Your task to perform on an android device: install app "Adobe Acrobat Reader: Edit PDF" Image 0: 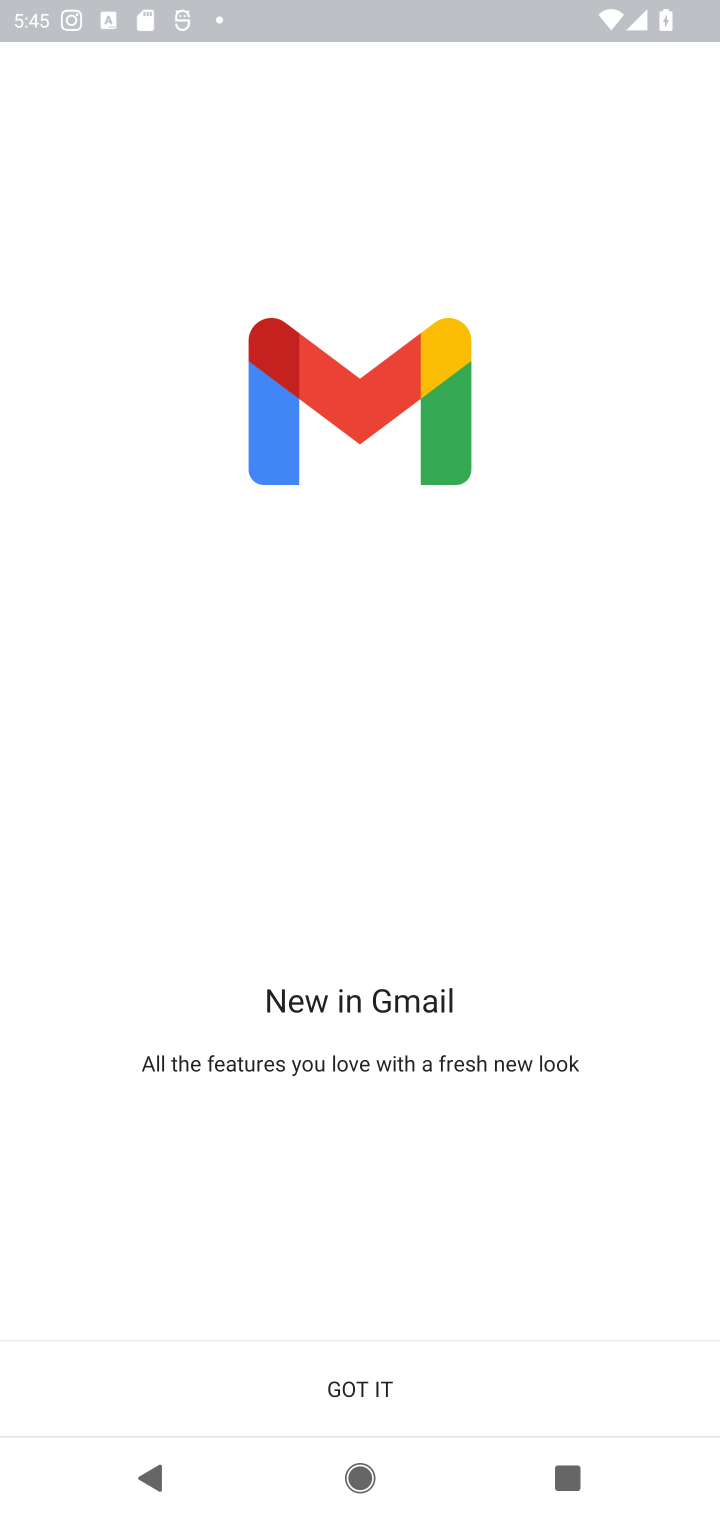
Step 0: press home button
Your task to perform on an android device: install app "Adobe Acrobat Reader: Edit PDF" Image 1: 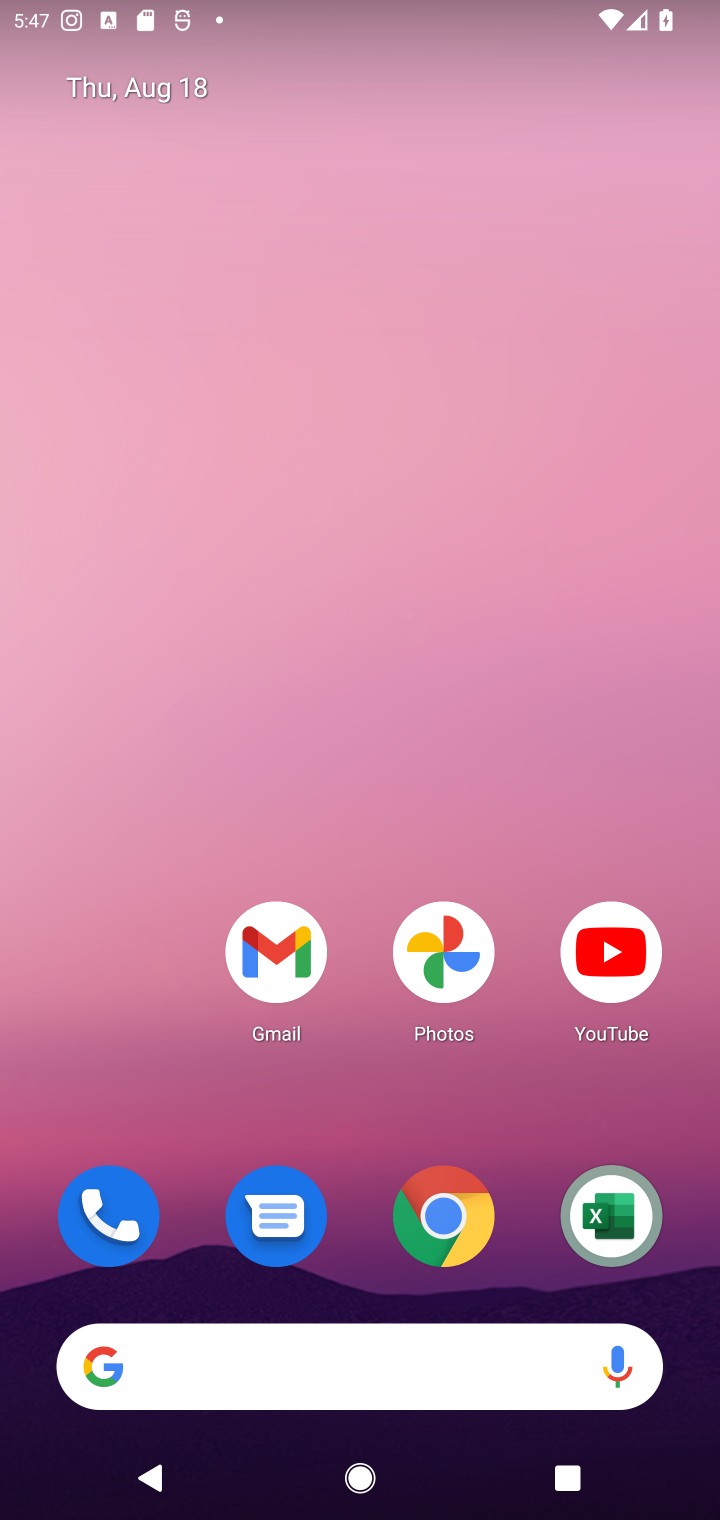
Step 1: drag from (366, 1078) to (432, 374)
Your task to perform on an android device: install app "Adobe Acrobat Reader: Edit PDF" Image 2: 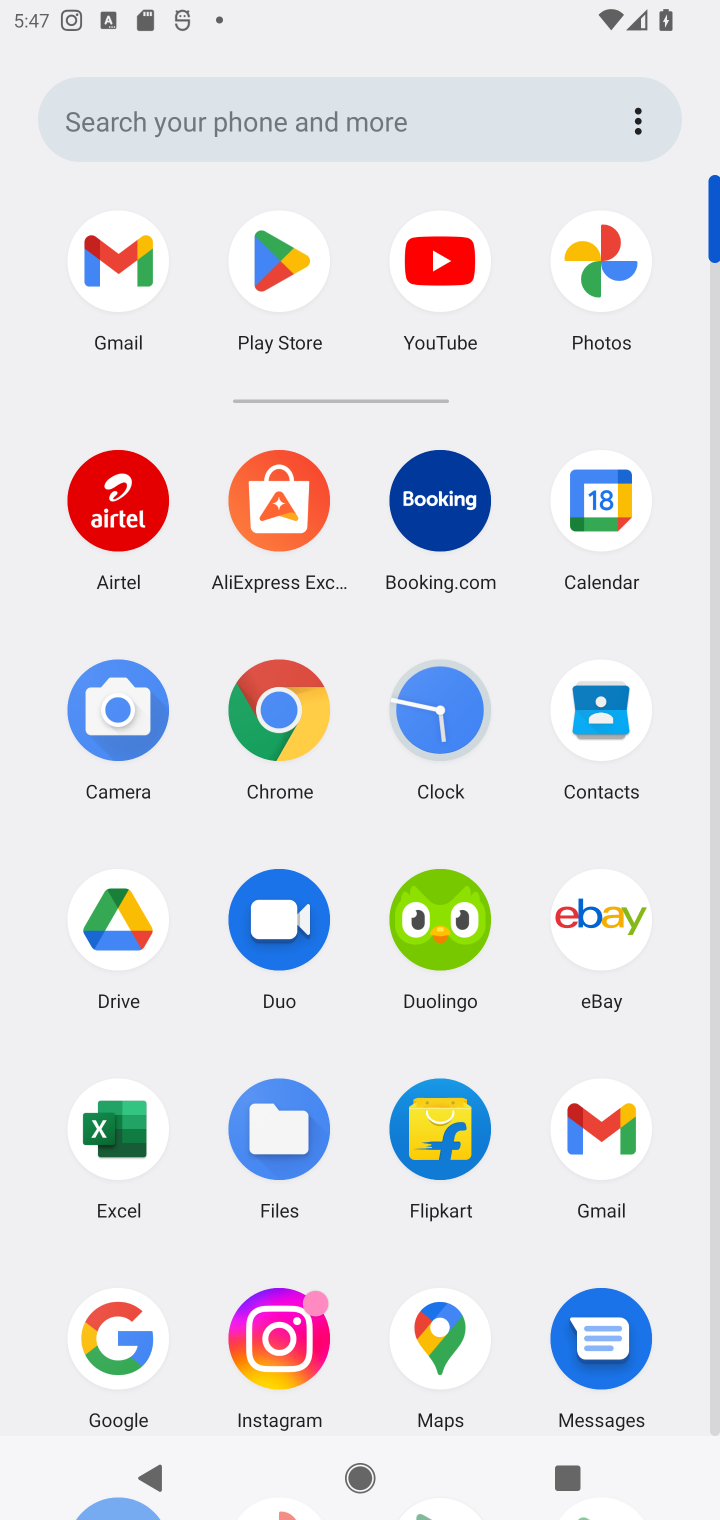
Step 2: click (300, 254)
Your task to perform on an android device: install app "Adobe Acrobat Reader: Edit PDF" Image 3: 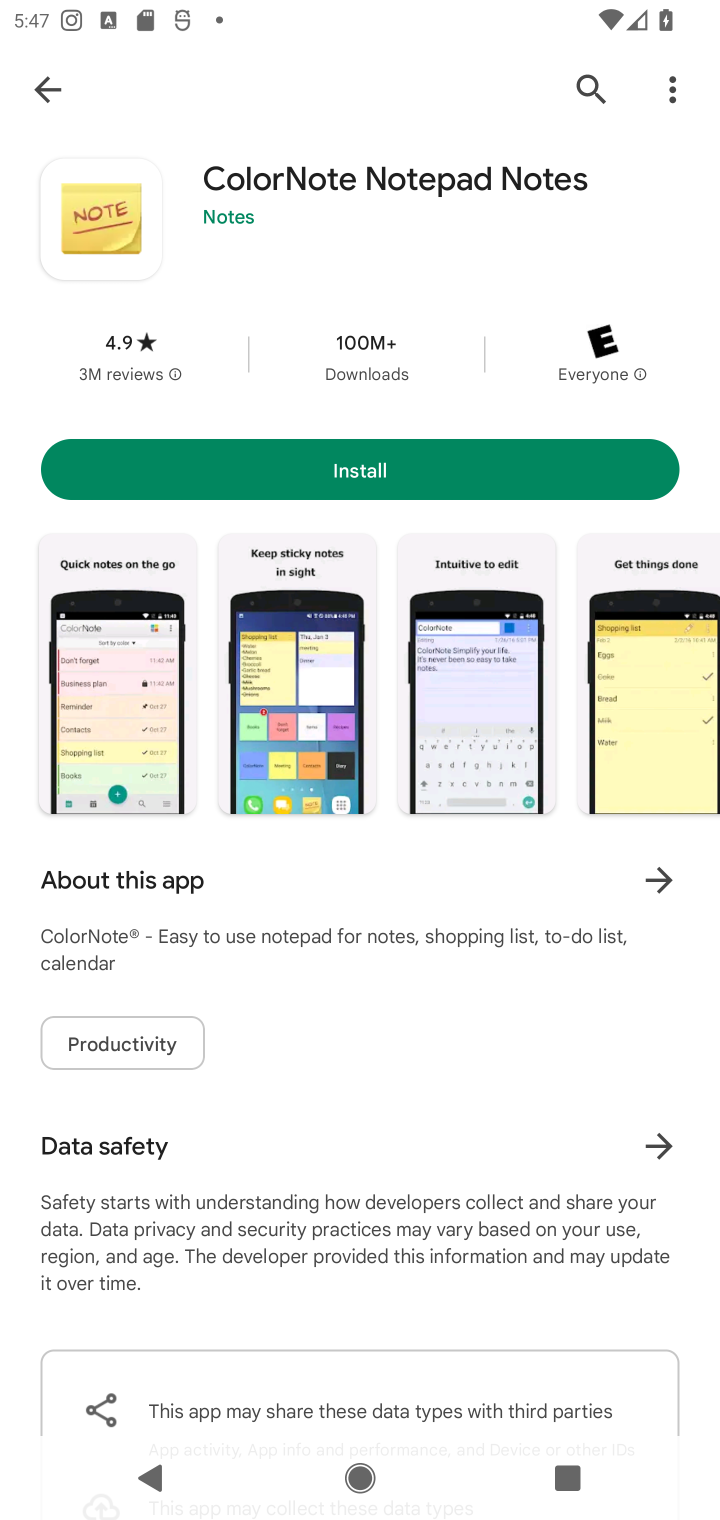
Step 3: click (576, 89)
Your task to perform on an android device: install app "Adobe Acrobat Reader: Edit PDF" Image 4: 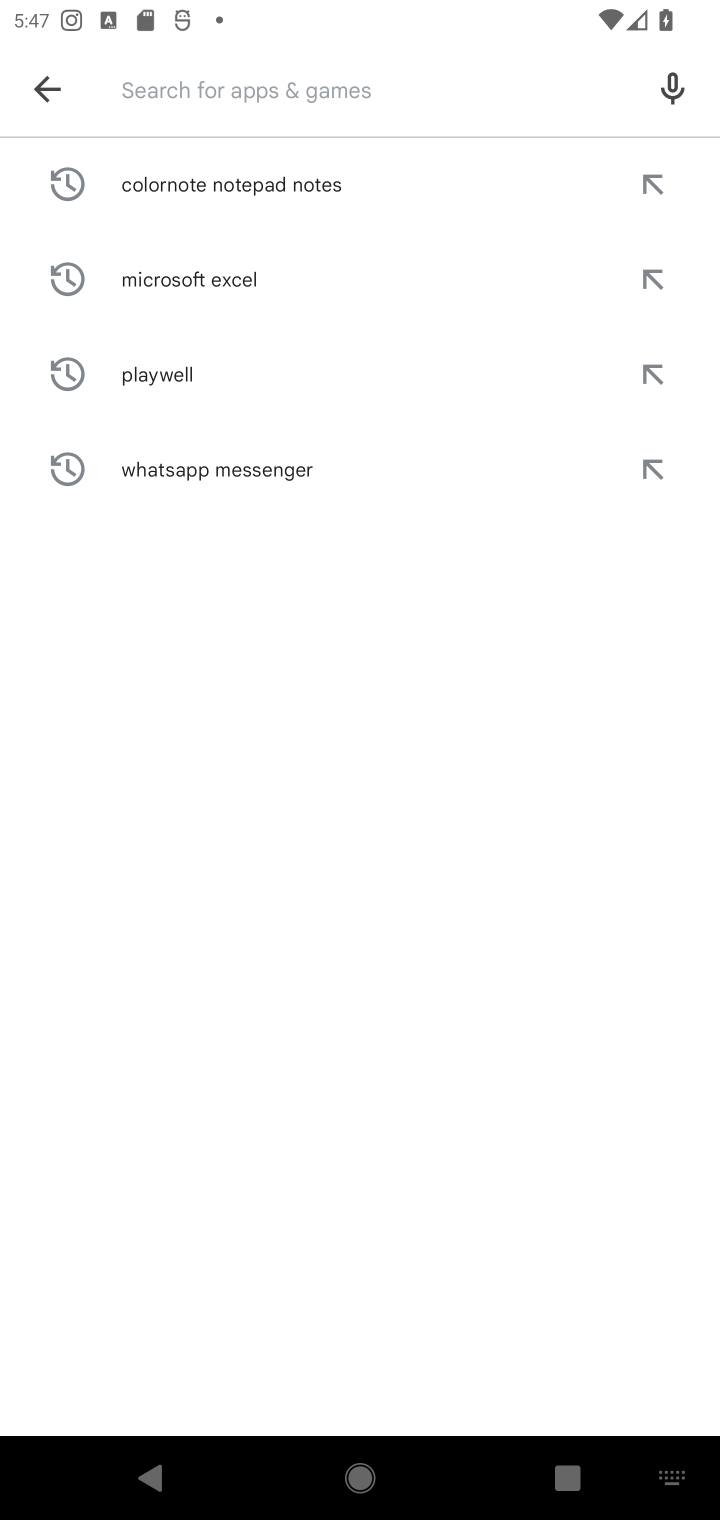
Step 4: type "Adobe Acrobat Reader: Edit PDF"
Your task to perform on an android device: install app "Adobe Acrobat Reader: Edit PDF" Image 5: 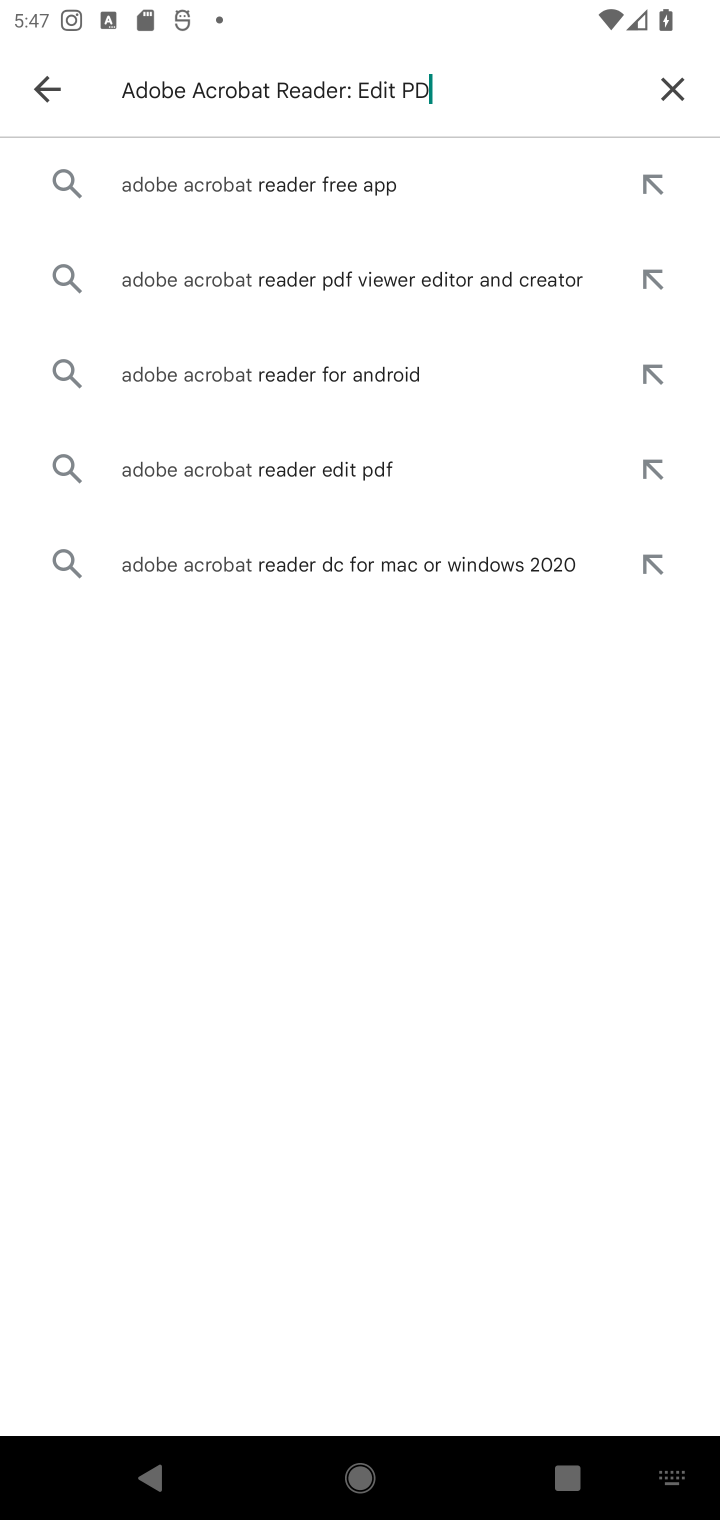
Step 5: type ""
Your task to perform on an android device: install app "Adobe Acrobat Reader: Edit PDF" Image 6: 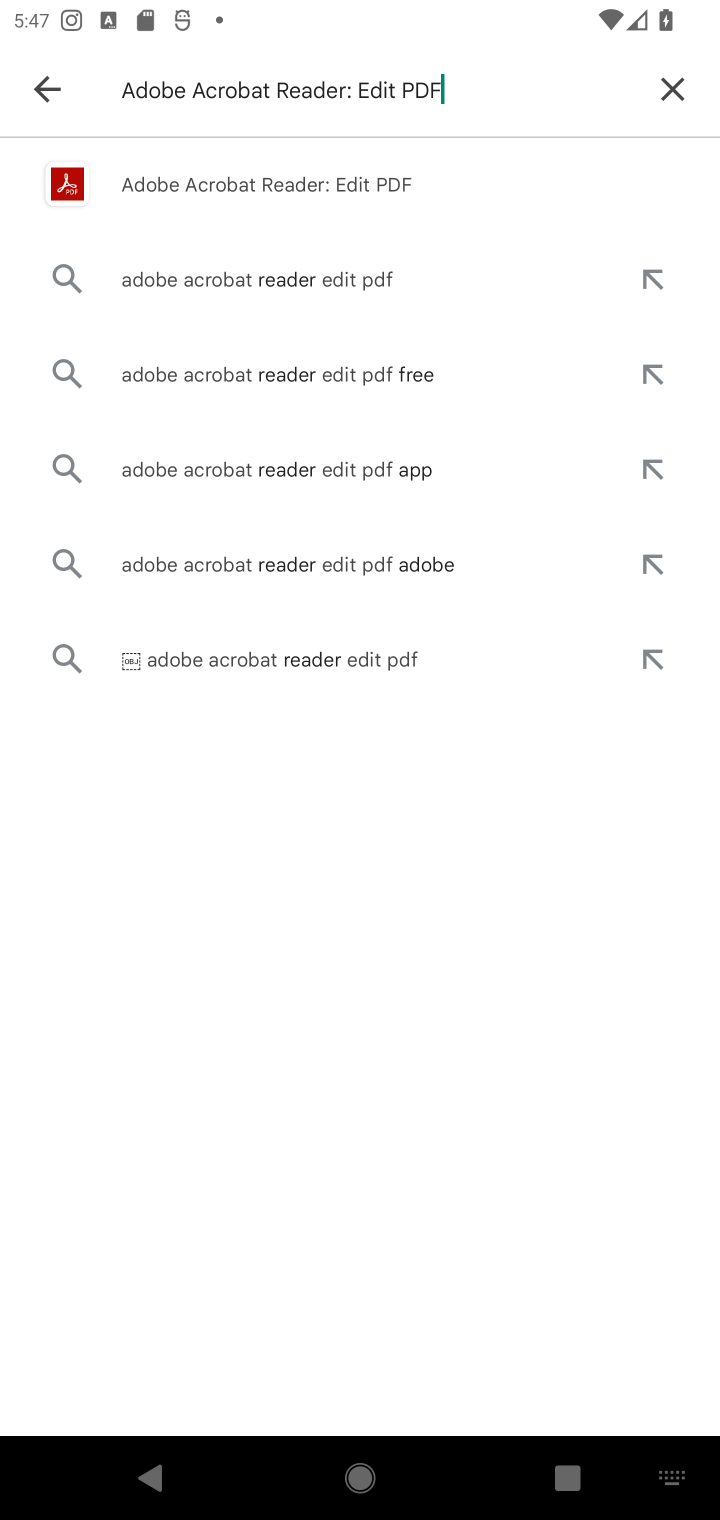
Step 6: click (228, 187)
Your task to perform on an android device: install app "Adobe Acrobat Reader: Edit PDF" Image 7: 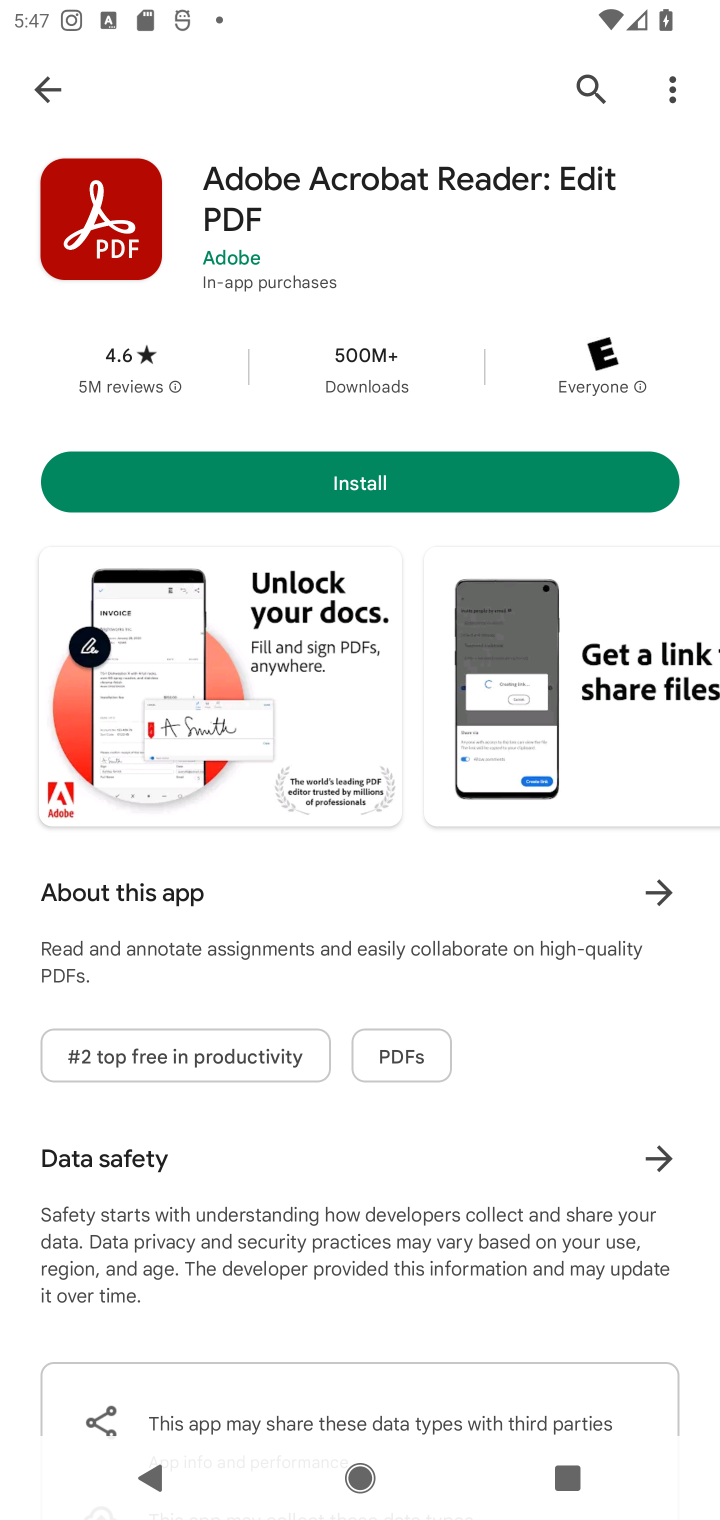
Step 7: click (322, 468)
Your task to perform on an android device: install app "Adobe Acrobat Reader: Edit PDF" Image 8: 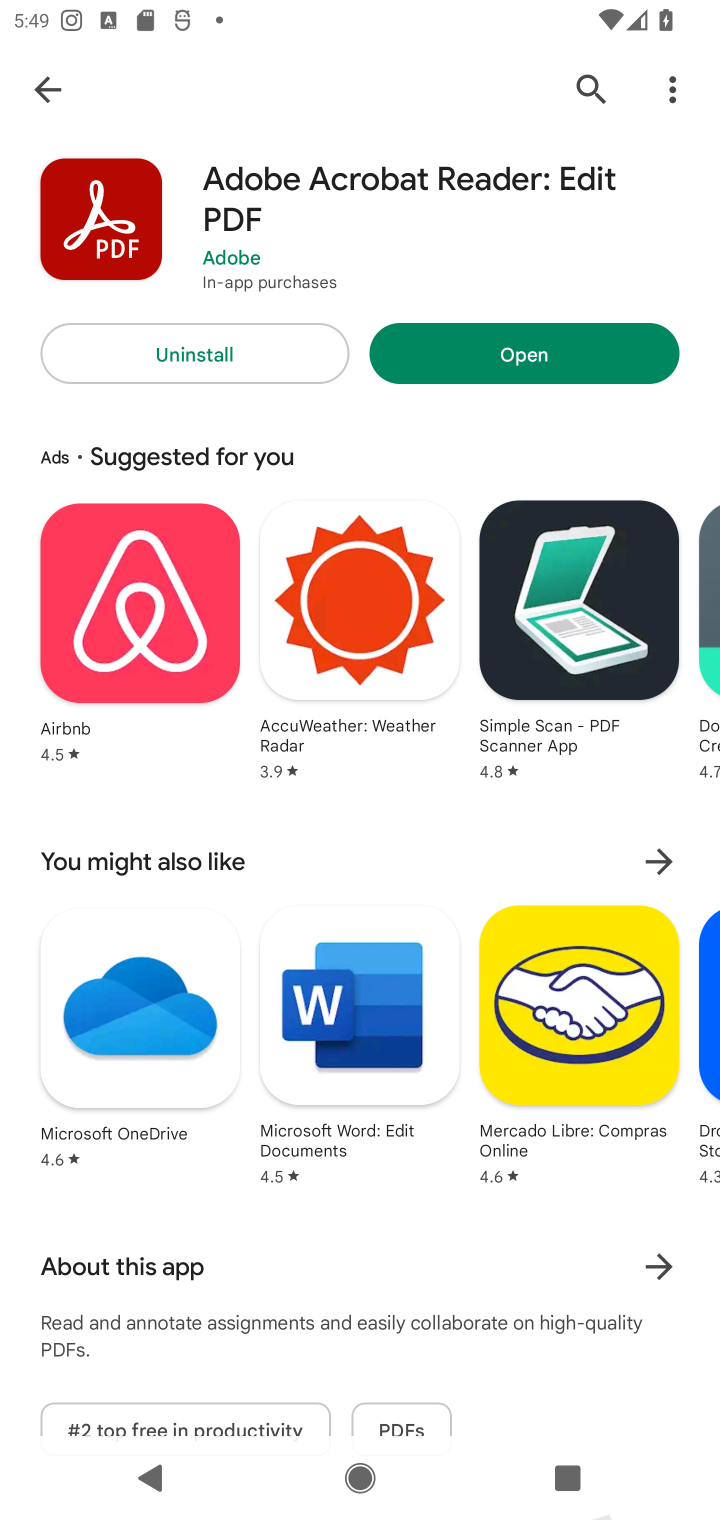
Step 8: task complete